Your task to perform on an android device: turn off location history Image 0: 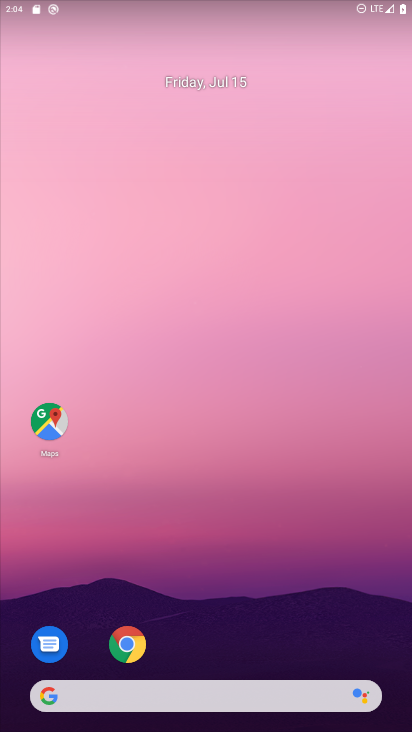
Step 0: task complete